Your task to perform on an android device: Is it going to rain tomorrow? Image 0: 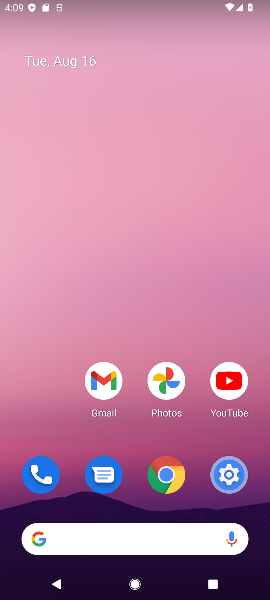
Step 0: drag from (194, 441) to (129, 29)
Your task to perform on an android device: Is it going to rain tomorrow? Image 1: 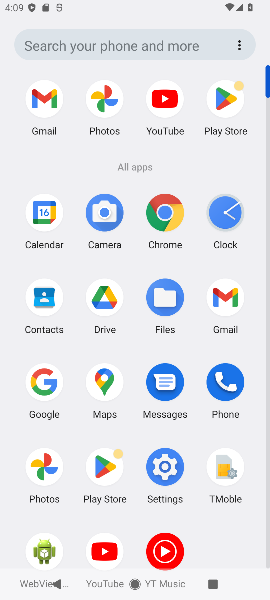
Step 1: click (37, 382)
Your task to perform on an android device: Is it going to rain tomorrow? Image 2: 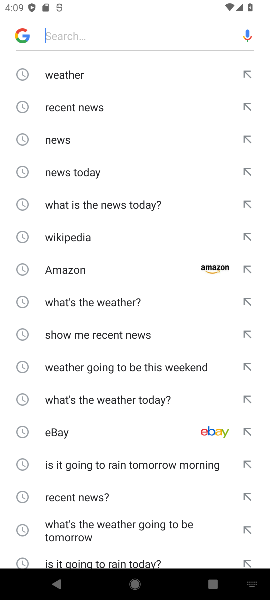
Step 2: drag from (133, 322) to (125, 134)
Your task to perform on an android device: Is it going to rain tomorrow? Image 3: 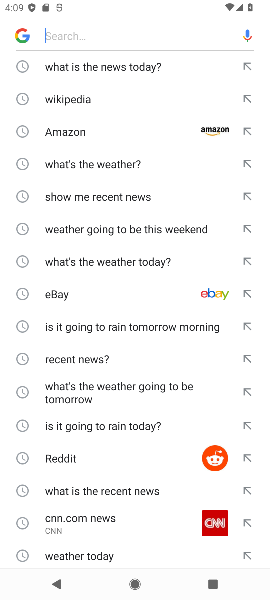
Step 3: drag from (112, 448) to (105, 148)
Your task to perform on an android device: Is it going to rain tomorrow? Image 4: 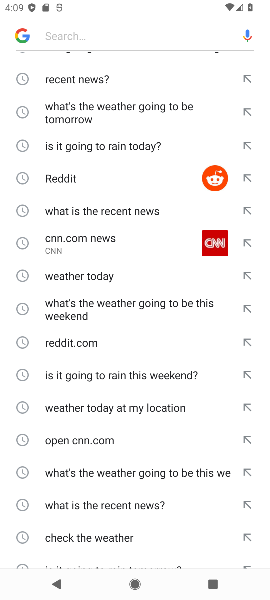
Step 4: drag from (119, 516) to (105, 206)
Your task to perform on an android device: Is it going to rain tomorrow? Image 5: 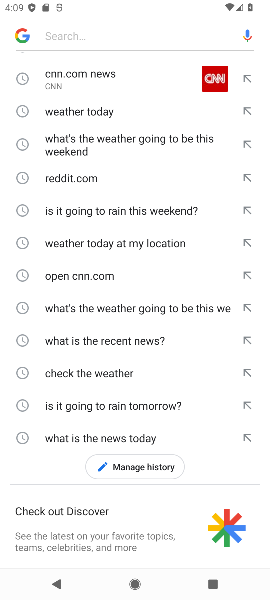
Step 5: click (72, 404)
Your task to perform on an android device: Is it going to rain tomorrow? Image 6: 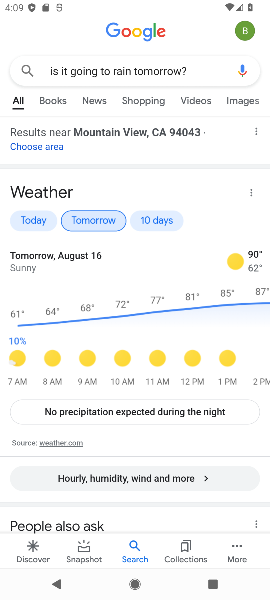
Step 6: task complete